Your task to perform on an android device: Go to notification settings Image 0: 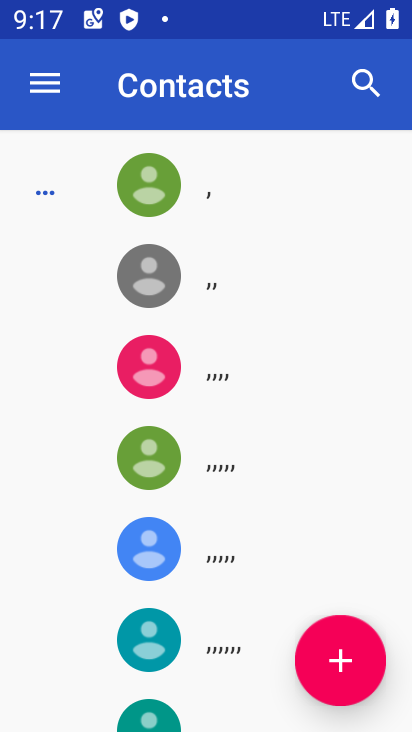
Step 0: press home button
Your task to perform on an android device: Go to notification settings Image 1: 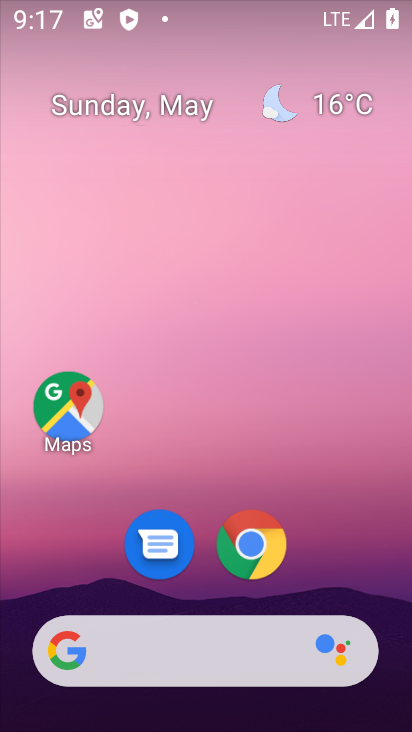
Step 1: drag from (328, 590) to (263, 122)
Your task to perform on an android device: Go to notification settings Image 2: 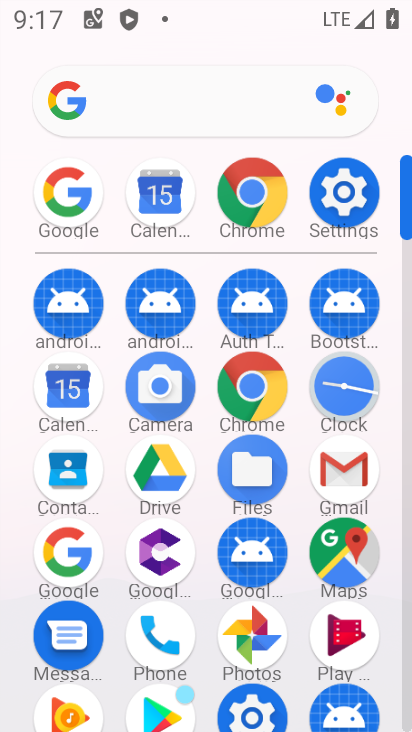
Step 2: click (343, 203)
Your task to perform on an android device: Go to notification settings Image 3: 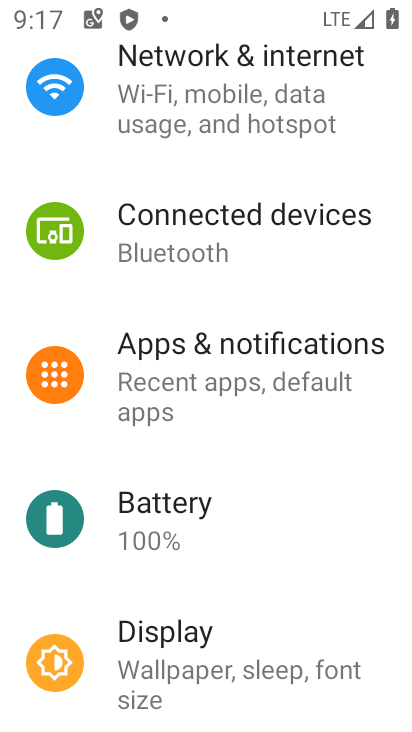
Step 3: click (228, 392)
Your task to perform on an android device: Go to notification settings Image 4: 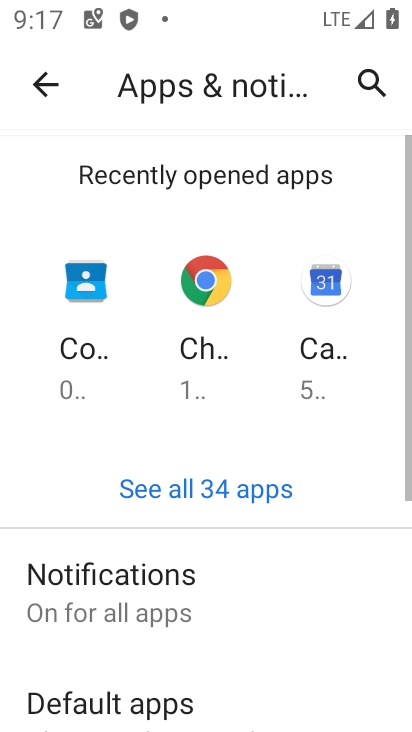
Step 4: click (128, 602)
Your task to perform on an android device: Go to notification settings Image 5: 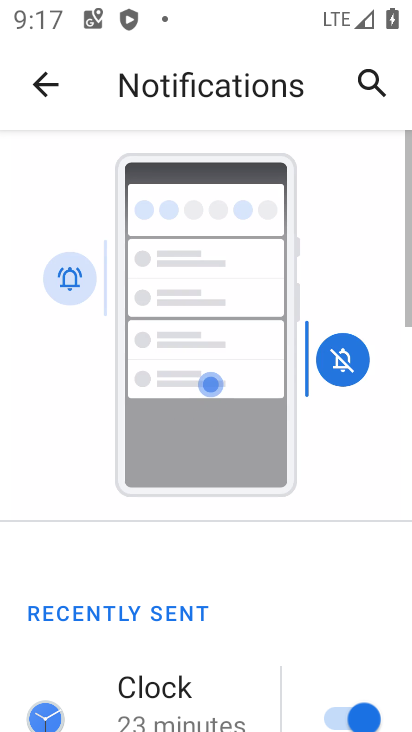
Step 5: task complete